Your task to perform on an android device: Show me the alarms in the clock app Image 0: 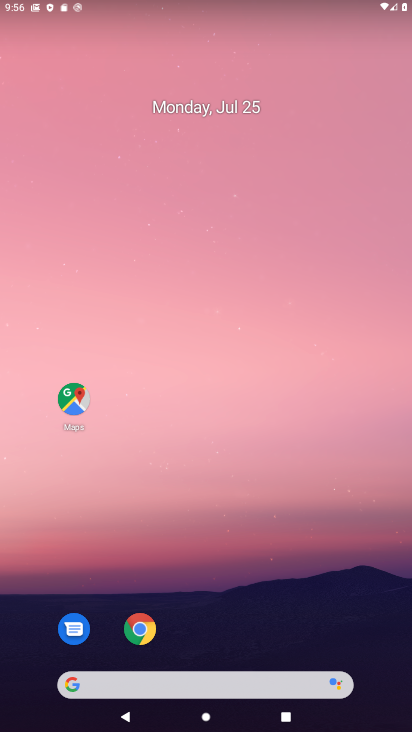
Step 0: drag from (268, 655) to (240, 0)
Your task to perform on an android device: Show me the alarms in the clock app Image 1: 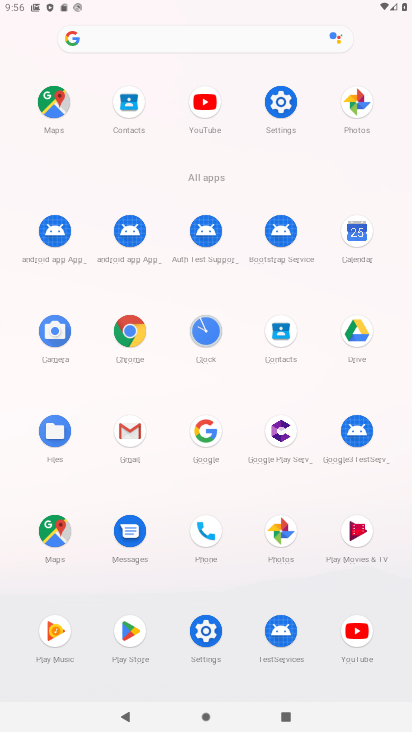
Step 1: click (204, 331)
Your task to perform on an android device: Show me the alarms in the clock app Image 2: 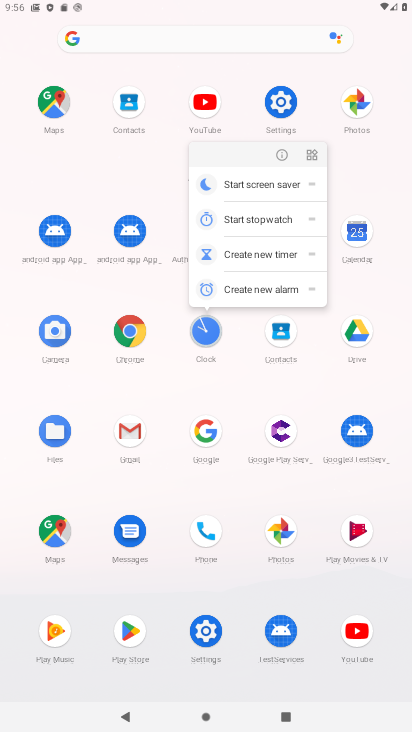
Step 2: click (204, 331)
Your task to perform on an android device: Show me the alarms in the clock app Image 3: 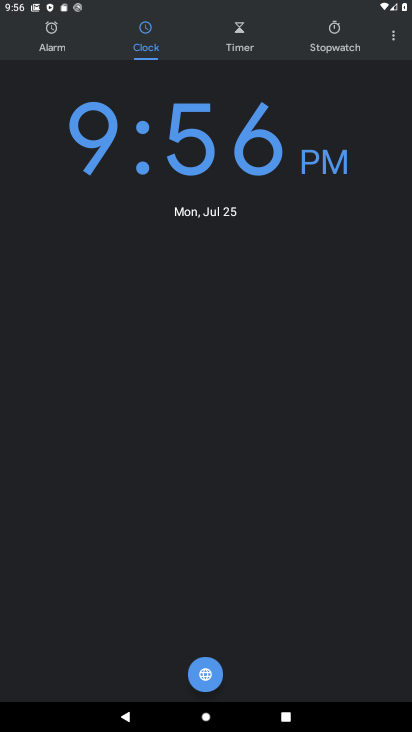
Step 3: click (59, 47)
Your task to perform on an android device: Show me the alarms in the clock app Image 4: 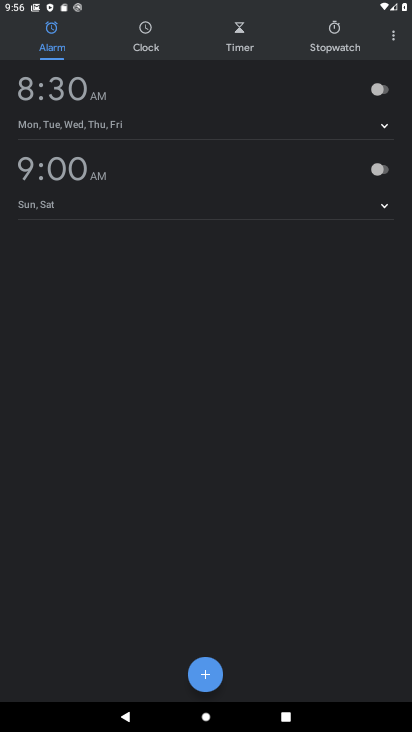
Step 4: task complete